Your task to perform on an android device: choose inbox layout in the gmail app Image 0: 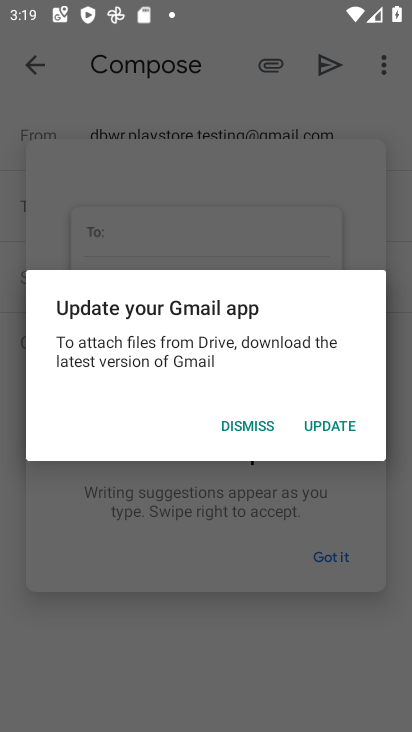
Step 0: press home button
Your task to perform on an android device: choose inbox layout in the gmail app Image 1: 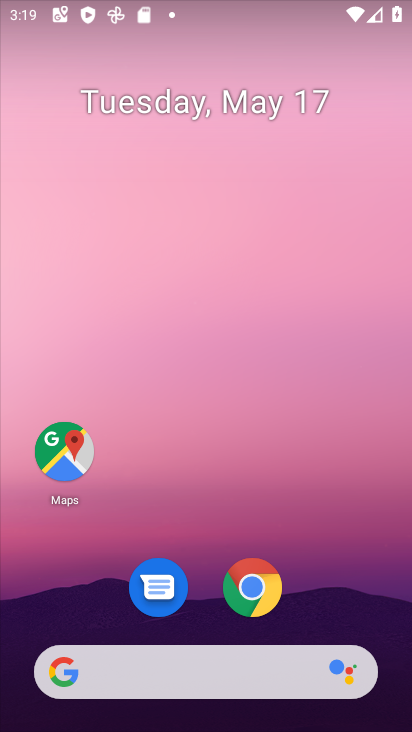
Step 1: drag from (305, 630) to (356, 20)
Your task to perform on an android device: choose inbox layout in the gmail app Image 2: 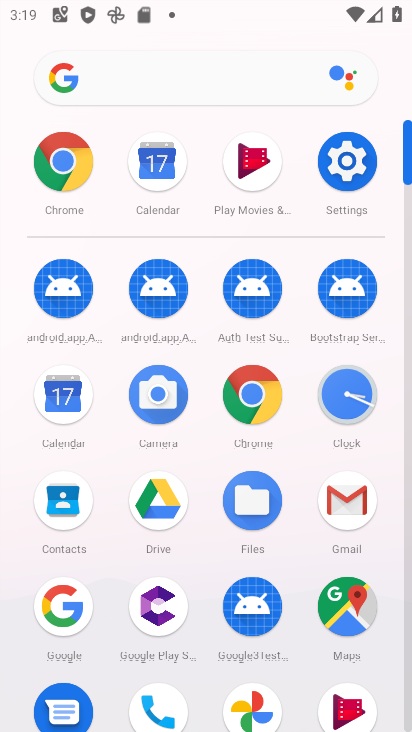
Step 2: click (348, 483)
Your task to perform on an android device: choose inbox layout in the gmail app Image 3: 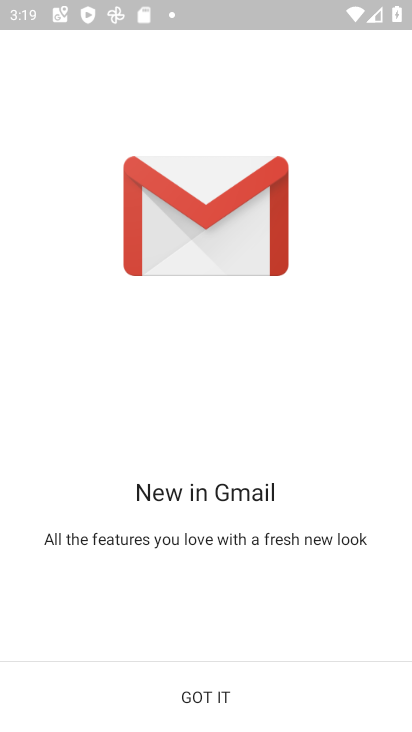
Step 3: click (211, 685)
Your task to perform on an android device: choose inbox layout in the gmail app Image 4: 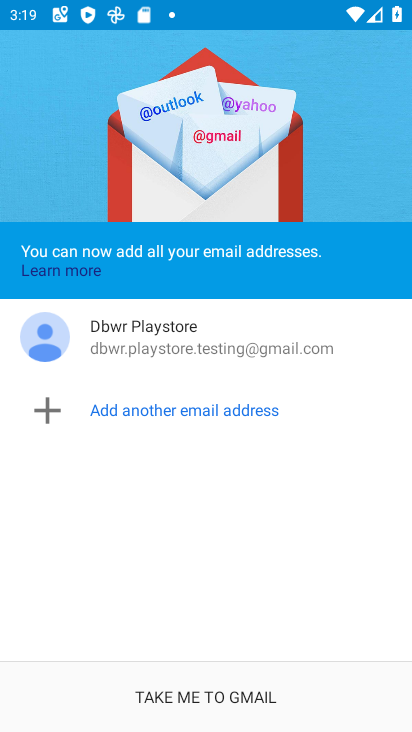
Step 4: click (268, 675)
Your task to perform on an android device: choose inbox layout in the gmail app Image 5: 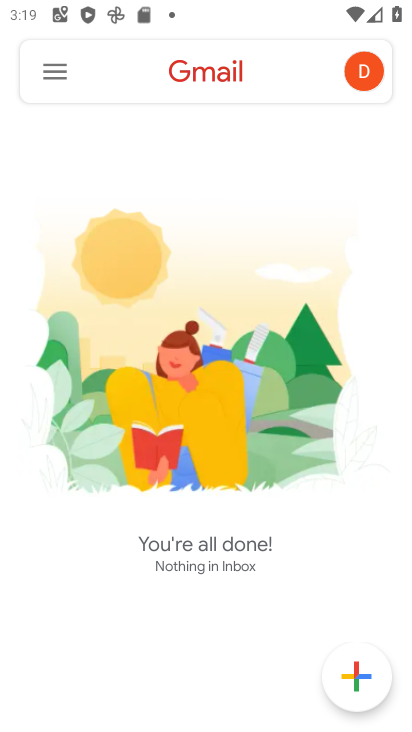
Step 5: click (56, 62)
Your task to perform on an android device: choose inbox layout in the gmail app Image 6: 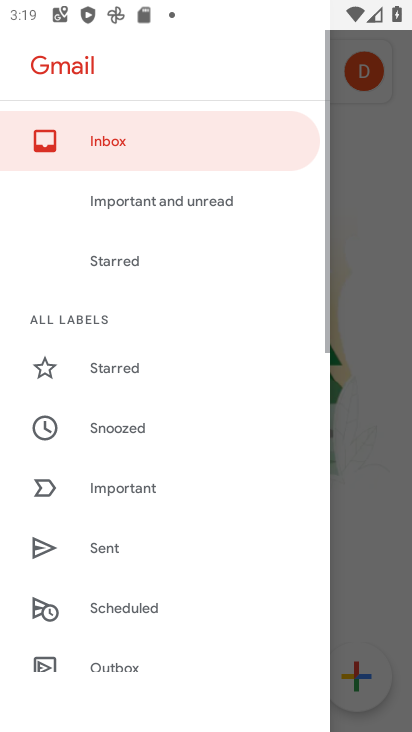
Step 6: drag from (179, 634) to (138, 58)
Your task to perform on an android device: choose inbox layout in the gmail app Image 7: 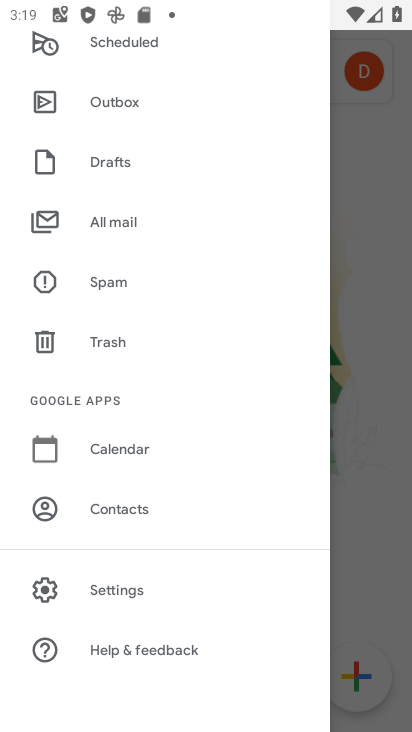
Step 7: click (132, 590)
Your task to perform on an android device: choose inbox layout in the gmail app Image 8: 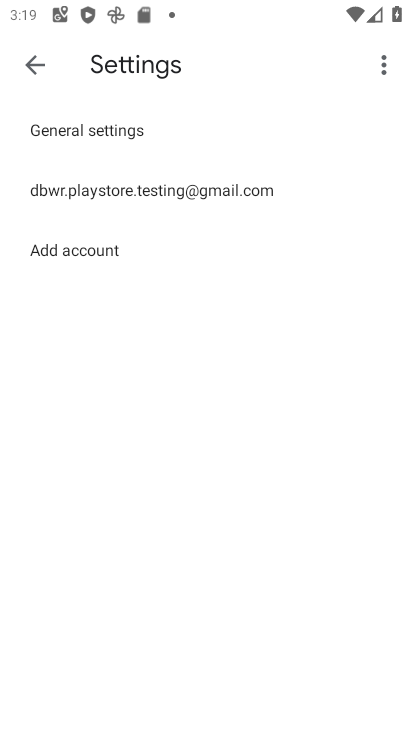
Step 8: click (155, 194)
Your task to perform on an android device: choose inbox layout in the gmail app Image 9: 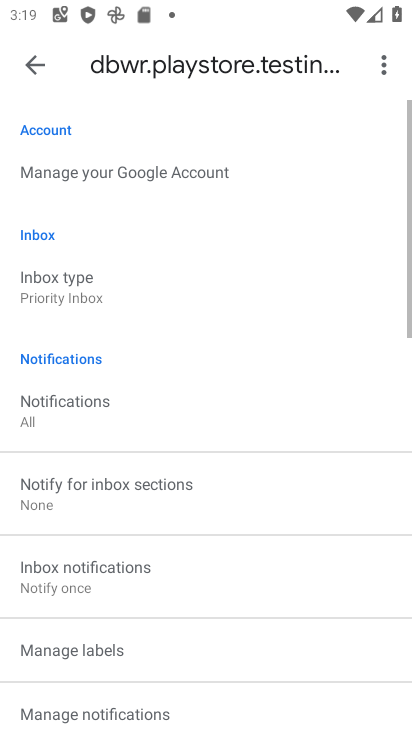
Step 9: click (95, 304)
Your task to perform on an android device: choose inbox layout in the gmail app Image 10: 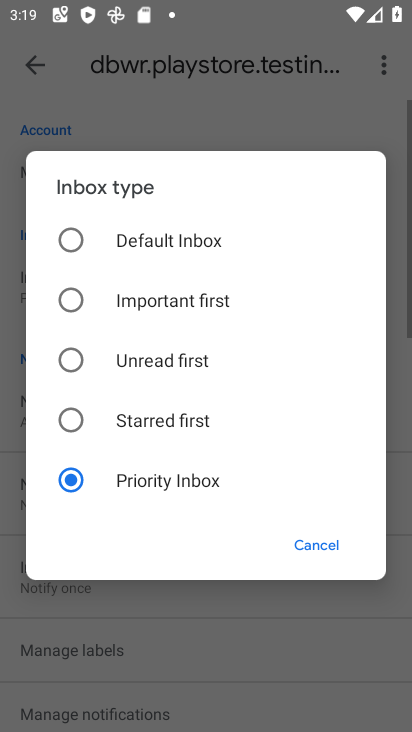
Step 10: click (169, 243)
Your task to perform on an android device: choose inbox layout in the gmail app Image 11: 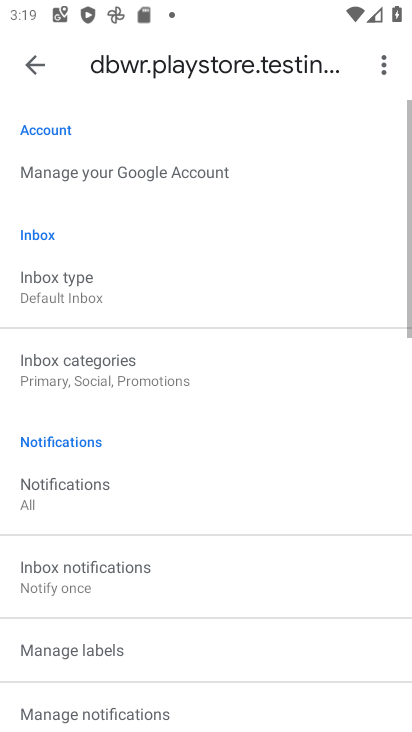
Step 11: task complete